Your task to perform on an android device: turn on the 12-hour format for clock Image 0: 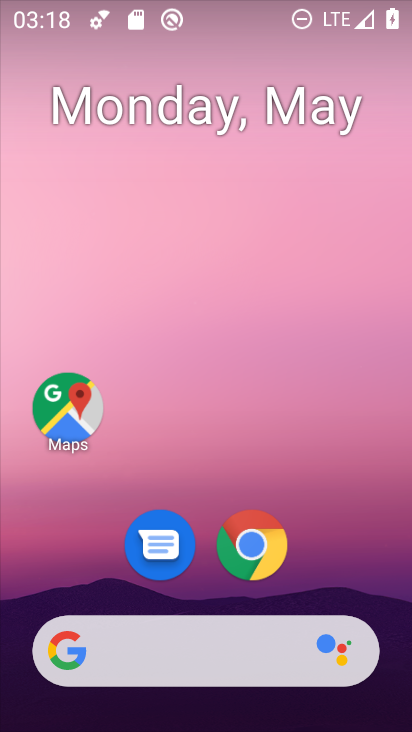
Step 0: drag from (363, 569) to (353, 164)
Your task to perform on an android device: turn on the 12-hour format for clock Image 1: 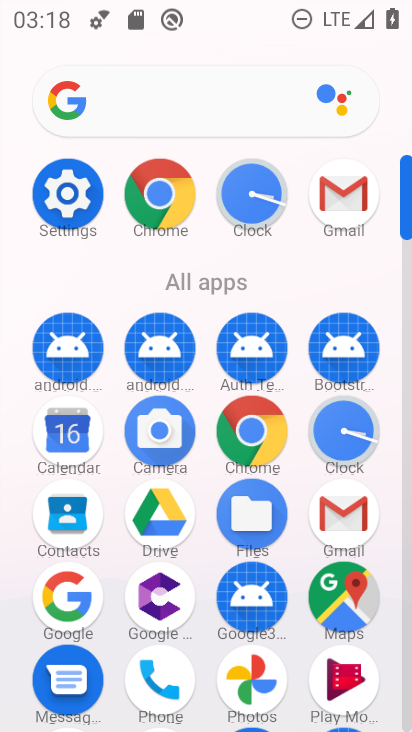
Step 1: click (237, 208)
Your task to perform on an android device: turn on the 12-hour format for clock Image 2: 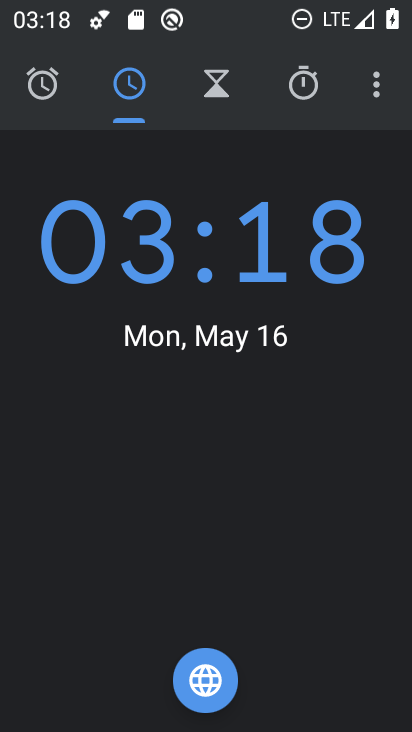
Step 2: click (376, 97)
Your task to perform on an android device: turn on the 12-hour format for clock Image 3: 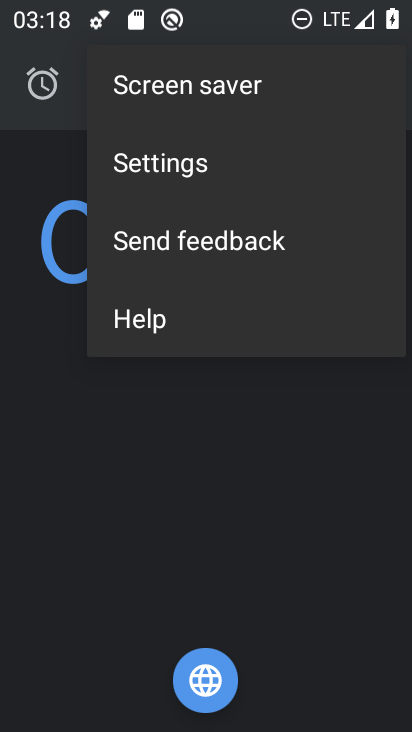
Step 3: click (191, 175)
Your task to perform on an android device: turn on the 12-hour format for clock Image 4: 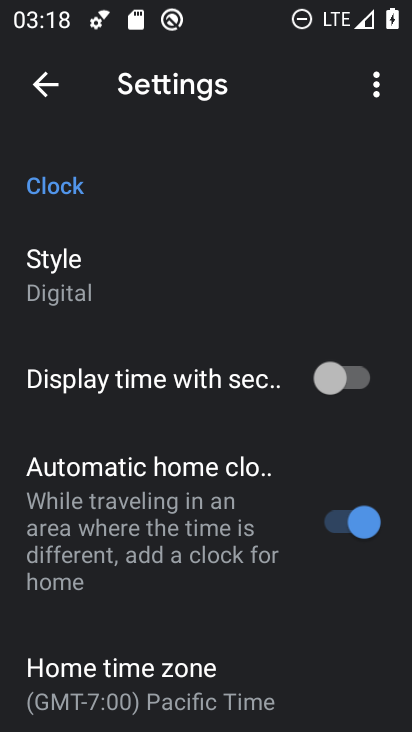
Step 4: drag from (242, 577) to (234, 260)
Your task to perform on an android device: turn on the 12-hour format for clock Image 5: 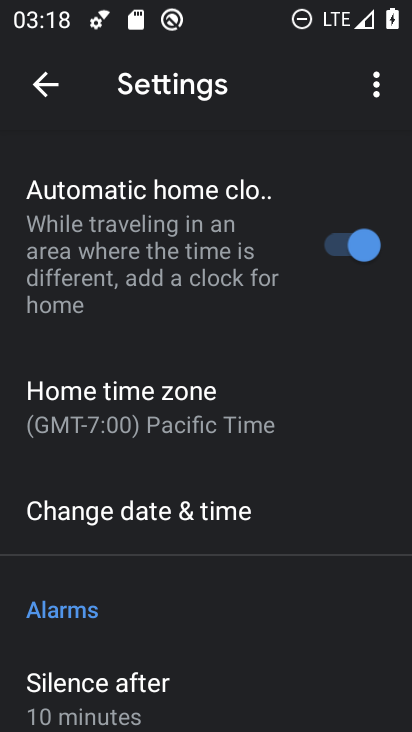
Step 5: drag from (203, 611) to (185, 195)
Your task to perform on an android device: turn on the 12-hour format for clock Image 6: 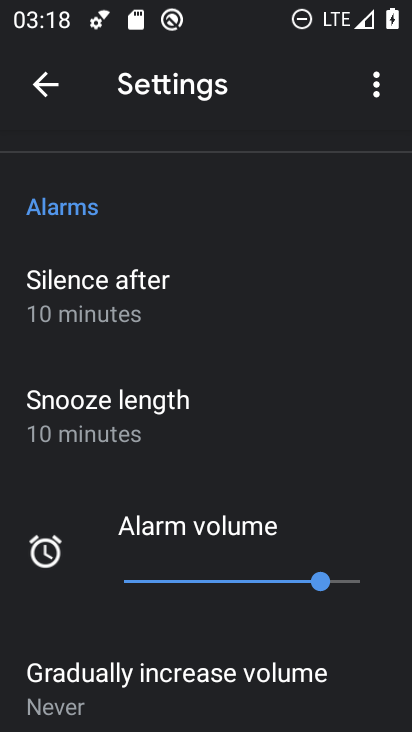
Step 6: drag from (207, 336) to (225, 649)
Your task to perform on an android device: turn on the 12-hour format for clock Image 7: 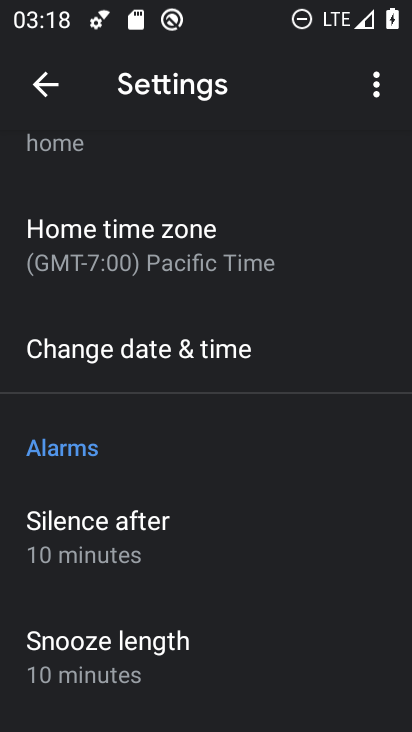
Step 7: click (166, 341)
Your task to perform on an android device: turn on the 12-hour format for clock Image 8: 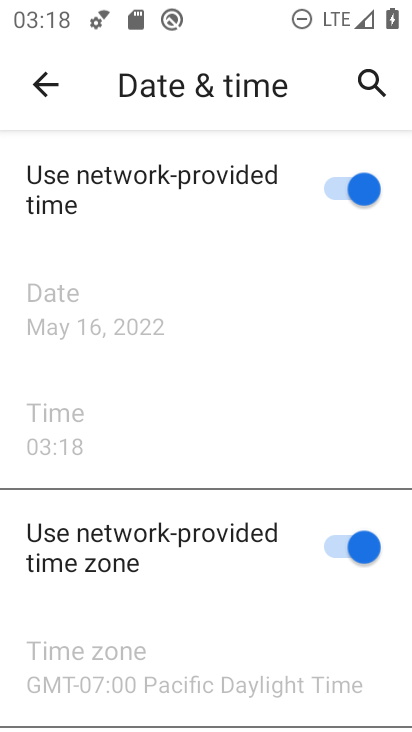
Step 8: drag from (348, 656) to (335, 285)
Your task to perform on an android device: turn on the 12-hour format for clock Image 9: 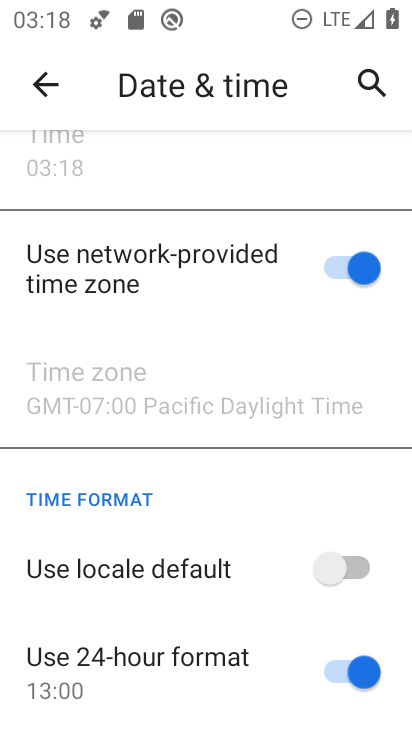
Step 9: click (355, 672)
Your task to perform on an android device: turn on the 12-hour format for clock Image 10: 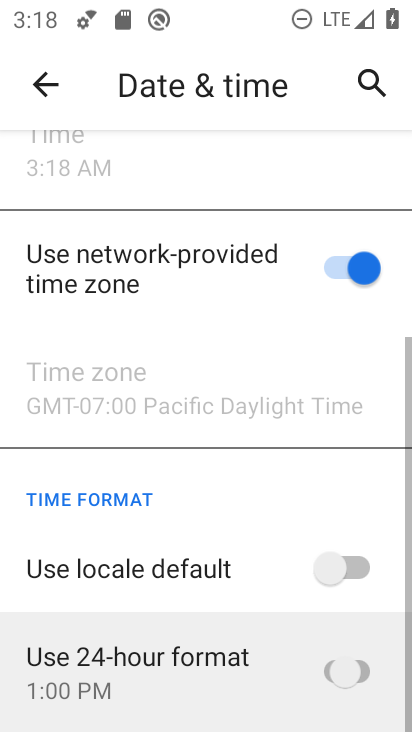
Step 10: click (330, 560)
Your task to perform on an android device: turn on the 12-hour format for clock Image 11: 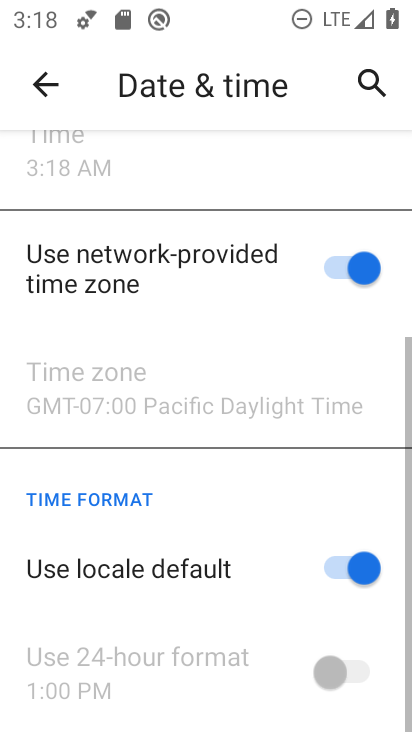
Step 11: task complete